Your task to perform on an android device: turn on airplane mode Image 0: 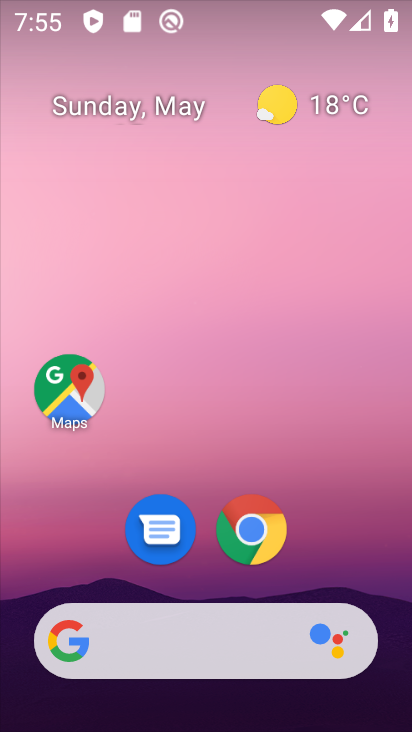
Step 0: drag from (353, 529) to (349, 29)
Your task to perform on an android device: turn on airplane mode Image 1: 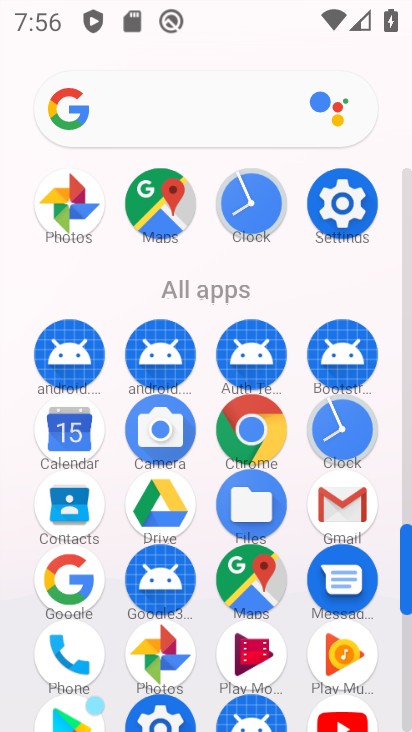
Step 1: click (342, 206)
Your task to perform on an android device: turn on airplane mode Image 2: 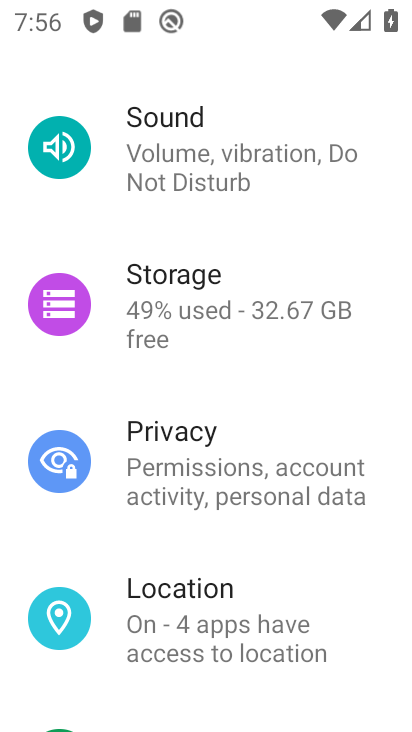
Step 2: drag from (355, 182) to (365, 590)
Your task to perform on an android device: turn on airplane mode Image 3: 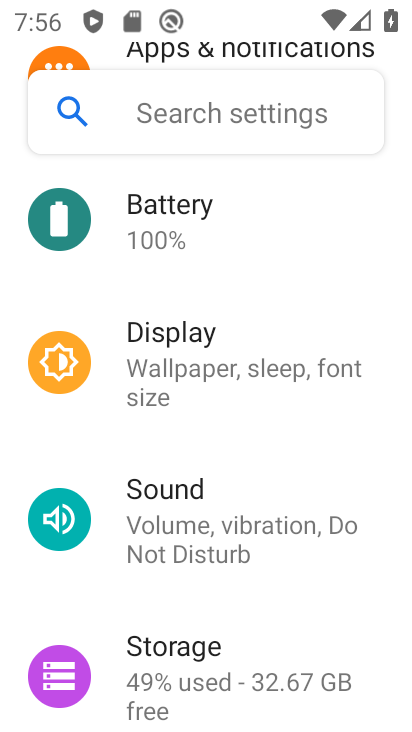
Step 3: drag from (319, 236) to (348, 622)
Your task to perform on an android device: turn on airplane mode Image 4: 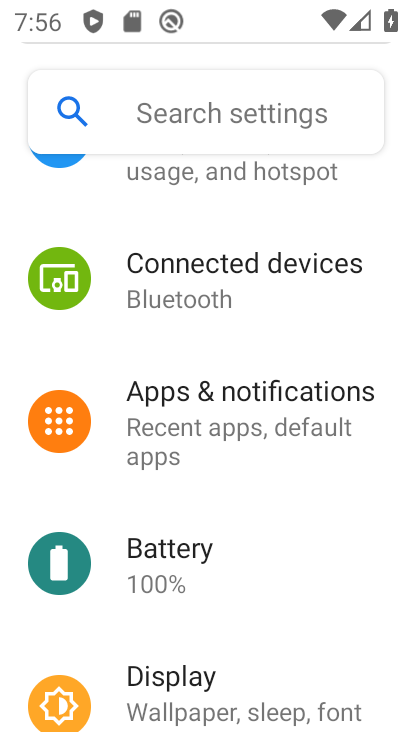
Step 4: drag from (318, 317) to (342, 659)
Your task to perform on an android device: turn on airplane mode Image 5: 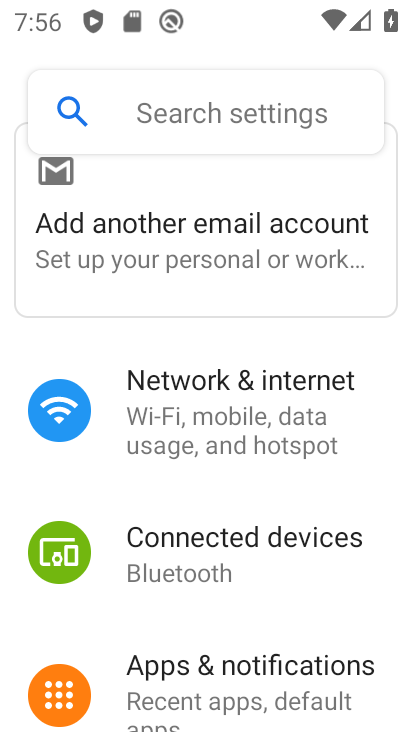
Step 5: click (209, 421)
Your task to perform on an android device: turn on airplane mode Image 6: 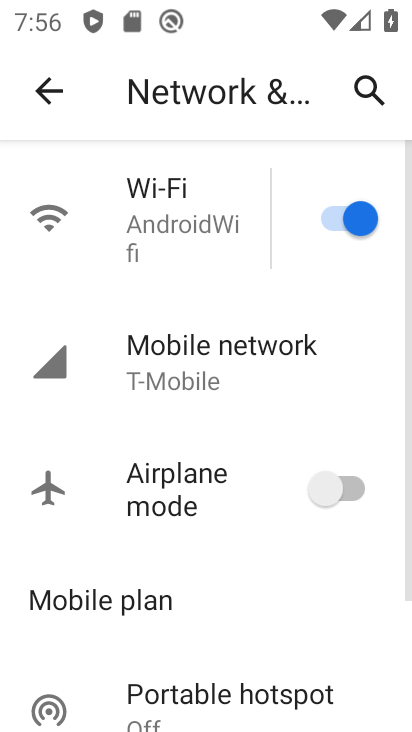
Step 6: click (325, 503)
Your task to perform on an android device: turn on airplane mode Image 7: 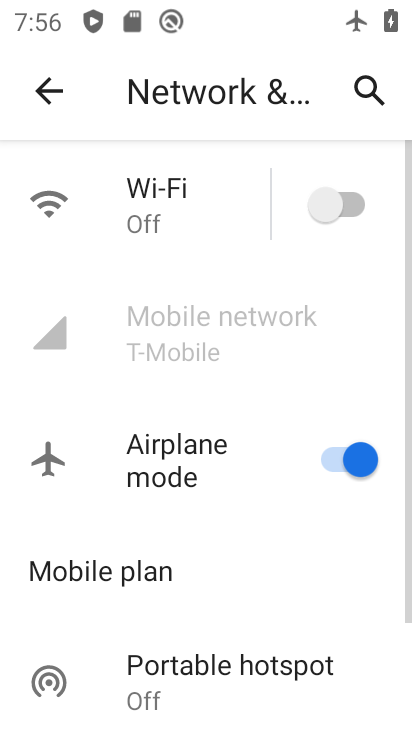
Step 7: task complete